Your task to perform on an android device: Open Youtube and go to "Your channel" Image 0: 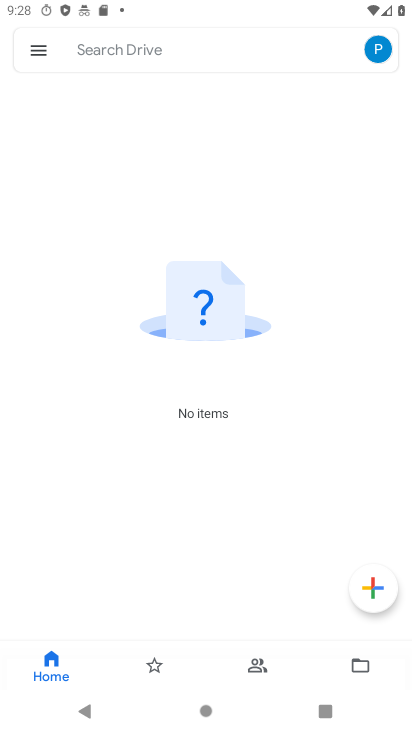
Step 0: press back button
Your task to perform on an android device: Open Youtube and go to "Your channel" Image 1: 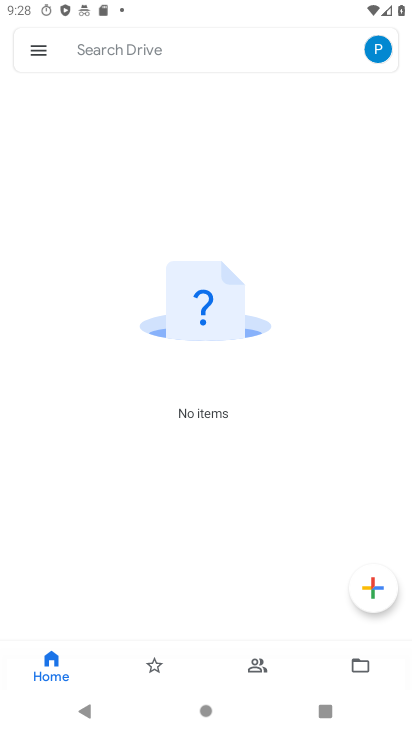
Step 1: press back button
Your task to perform on an android device: Open Youtube and go to "Your channel" Image 2: 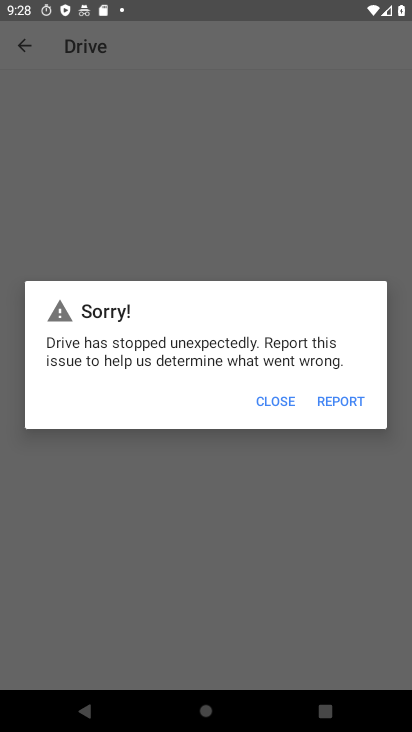
Step 2: click (262, 383)
Your task to perform on an android device: Open Youtube and go to "Your channel" Image 3: 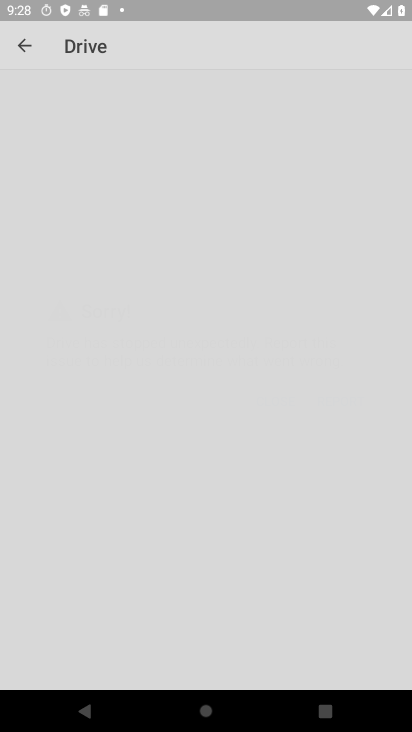
Step 3: click (267, 393)
Your task to perform on an android device: Open Youtube and go to "Your channel" Image 4: 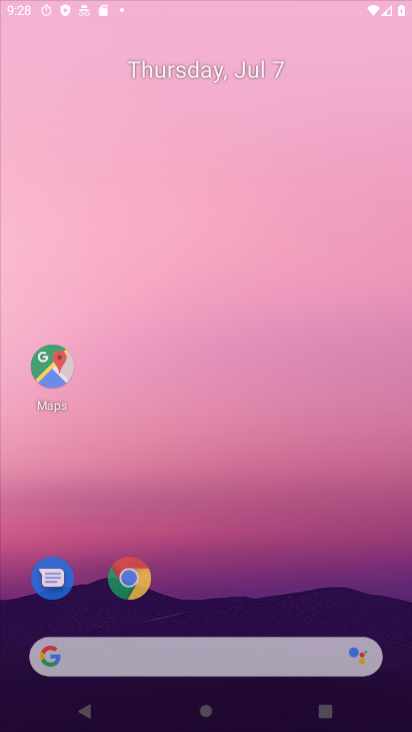
Step 4: click (272, 393)
Your task to perform on an android device: Open Youtube and go to "Your channel" Image 5: 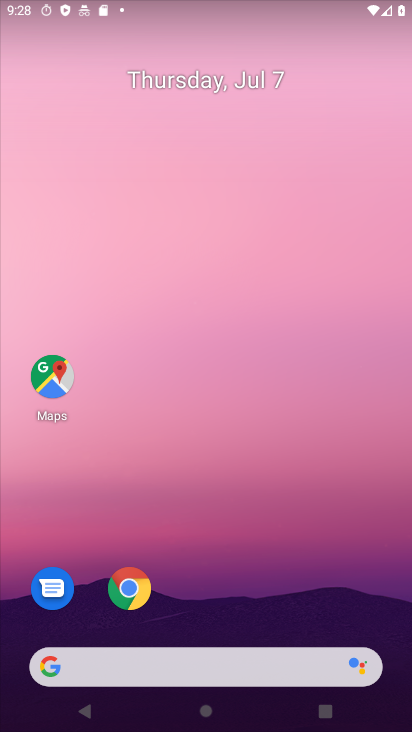
Step 5: drag from (286, 524) to (253, 135)
Your task to perform on an android device: Open Youtube and go to "Your channel" Image 6: 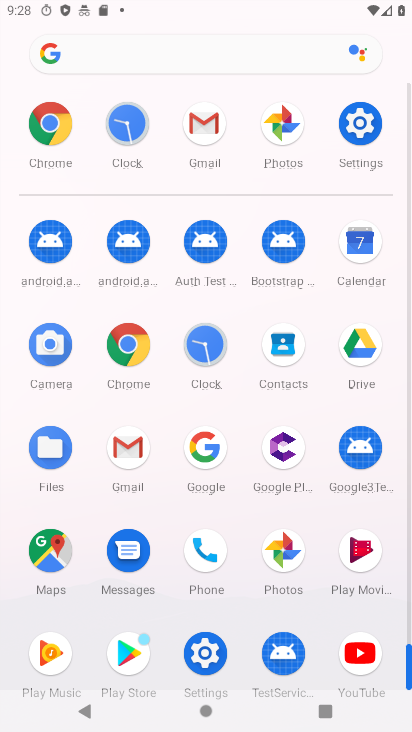
Step 6: click (362, 642)
Your task to perform on an android device: Open Youtube and go to "Your channel" Image 7: 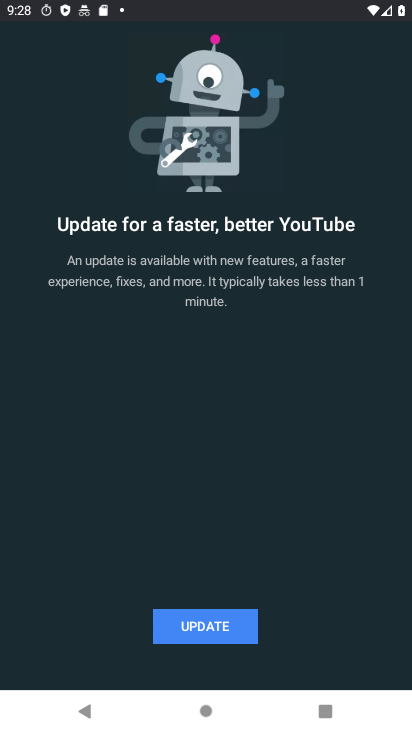
Step 7: press back button
Your task to perform on an android device: Open Youtube and go to "Your channel" Image 8: 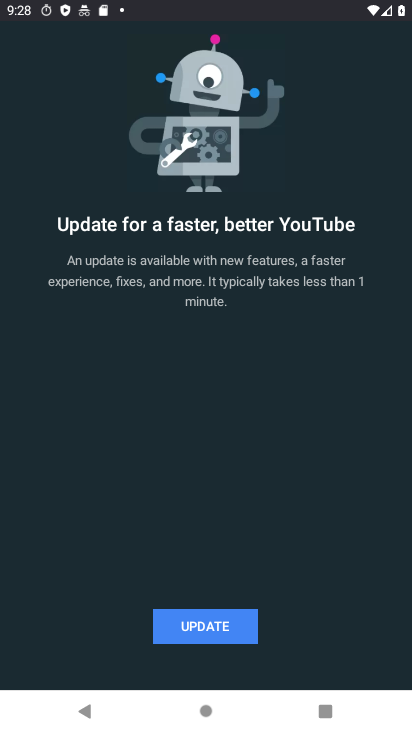
Step 8: press back button
Your task to perform on an android device: Open Youtube and go to "Your channel" Image 9: 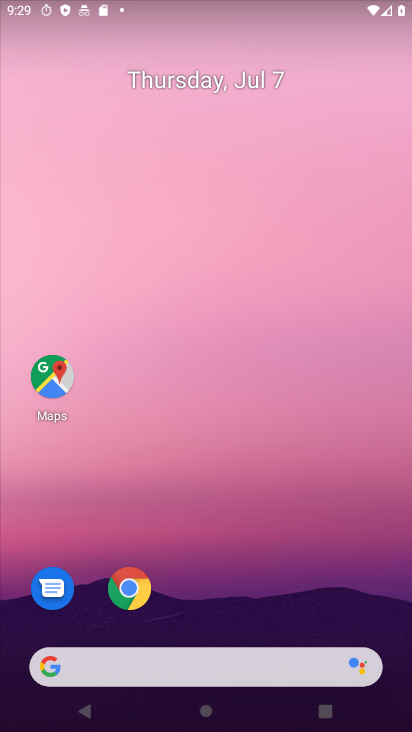
Step 9: drag from (201, 587) to (136, 266)
Your task to perform on an android device: Open Youtube and go to "Your channel" Image 10: 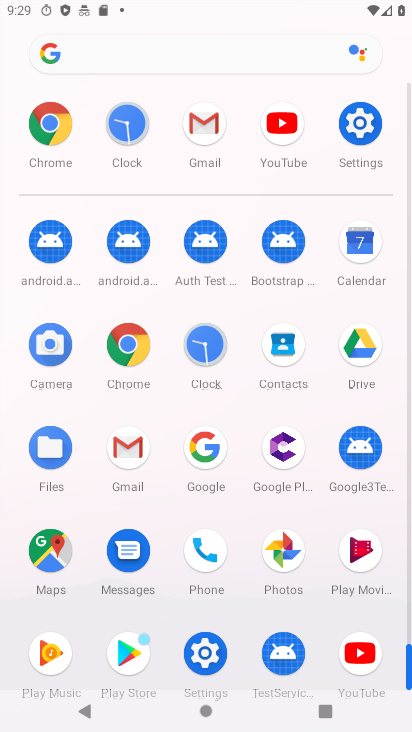
Step 10: click (204, 655)
Your task to perform on an android device: Open Youtube and go to "Your channel" Image 11: 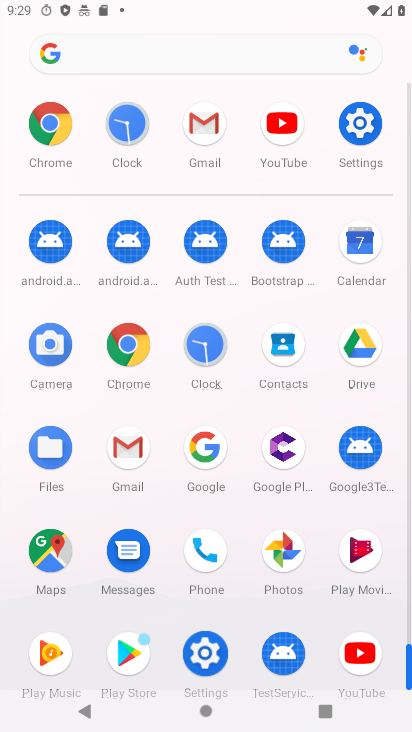
Step 11: click (204, 655)
Your task to perform on an android device: Open Youtube and go to "Your channel" Image 12: 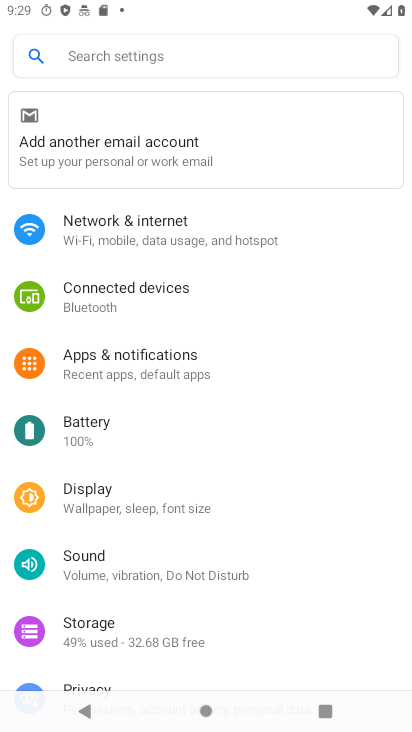
Step 12: press back button
Your task to perform on an android device: Open Youtube and go to "Your channel" Image 13: 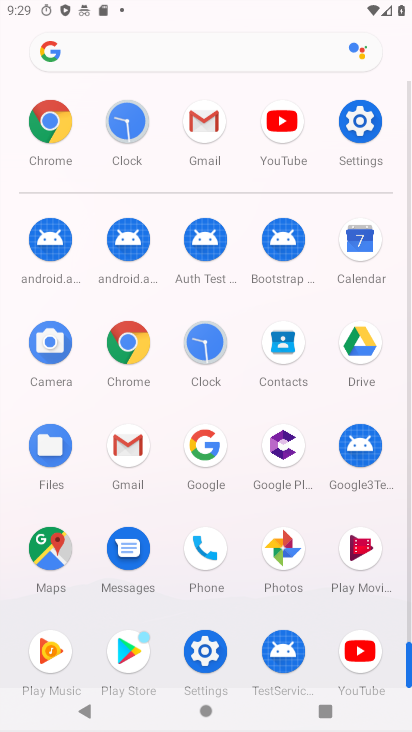
Step 13: press back button
Your task to perform on an android device: Open Youtube and go to "Your channel" Image 14: 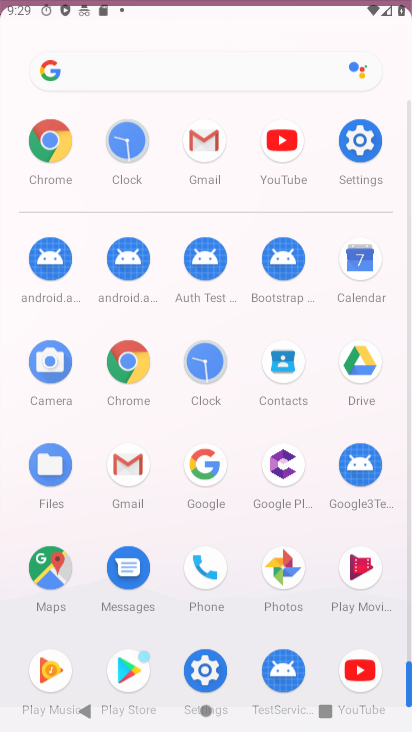
Step 14: press back button
Your task to perform on an android device: Open Youtube and go to "Your channel" Image 15: 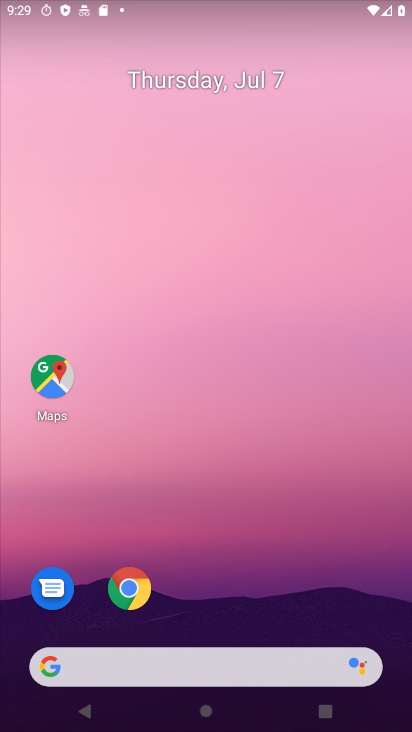
Step 15: drag from (227, 449) to (114, 24)
Your task to perform on an android device: Open Youtube and go to "Your channel" Image 16: 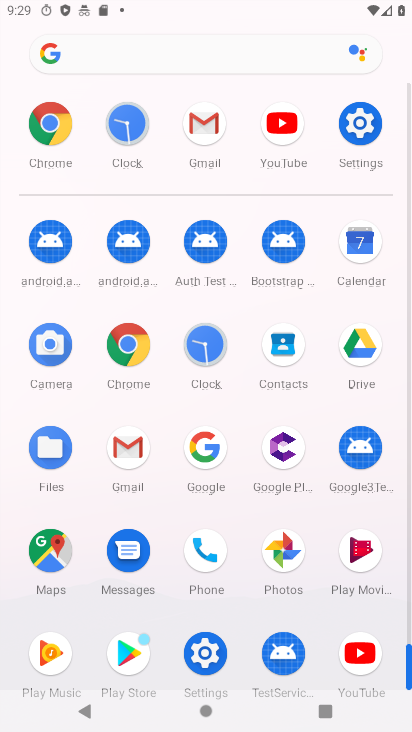
Step 16: click (289, 127)
Your task to perform on an android device: Open Youtube and go to "Your channel" Image 17: 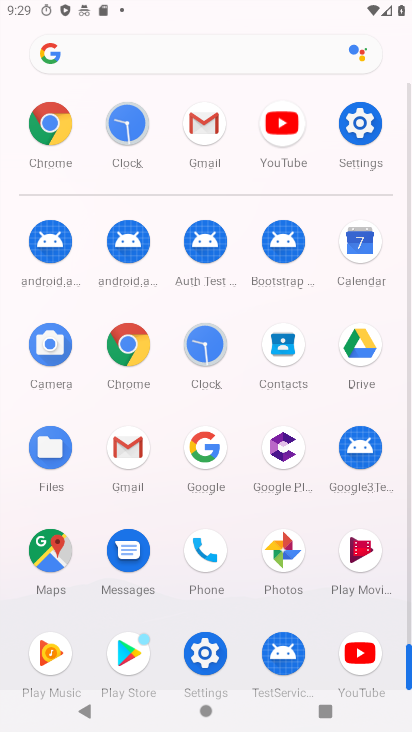
Step 17: click (289, 127)
Your task to perform on an android device: Open Youtube and go to "Your channel" Image 18: 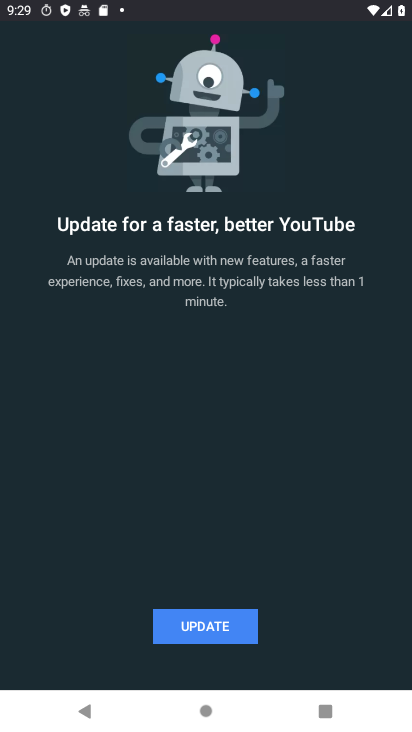
Step 18: click (204, 625)
Your task to perform on an android device: Open Youtube and go to "Your channel" Image 19: 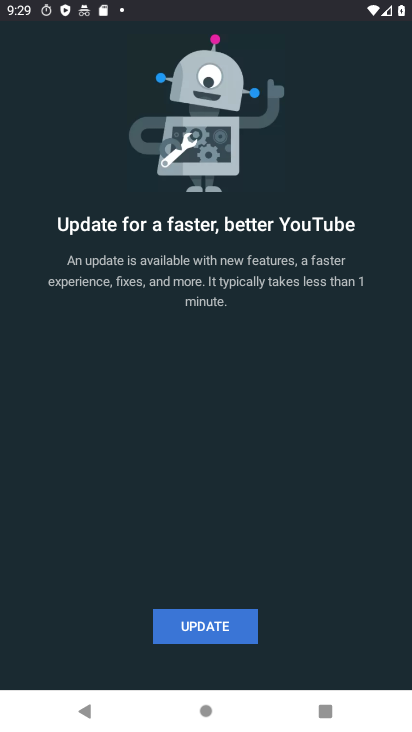
Step 19: click (203, 626)
Your task to perform on an android device: Open Youtube and go to "Your channel" Image 20: 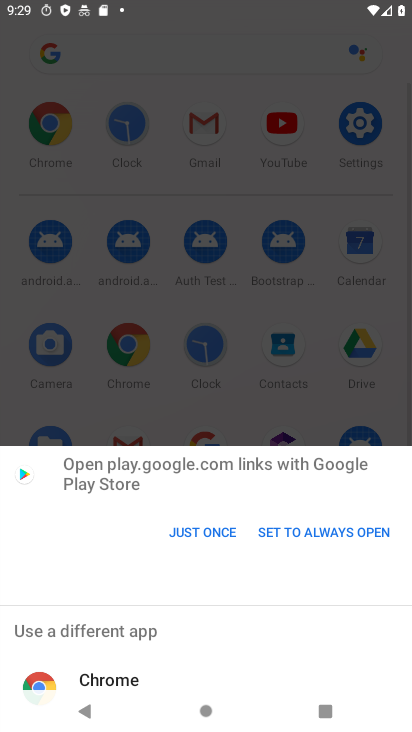
Step 20: drag from (227, 625) to (118, 144)
Your task to perform on an android device: Open Youtube and go to "Your channel" Image 21: 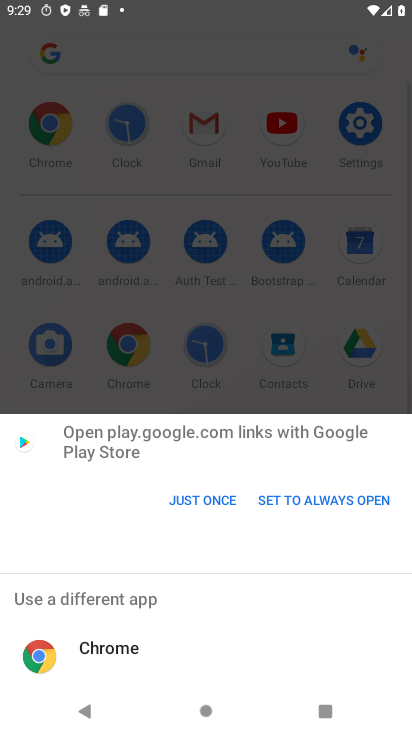
Step 21: click (112, 647)
Your task to perform on an android device: Open Youtube and go to "Your channel" Image 22: 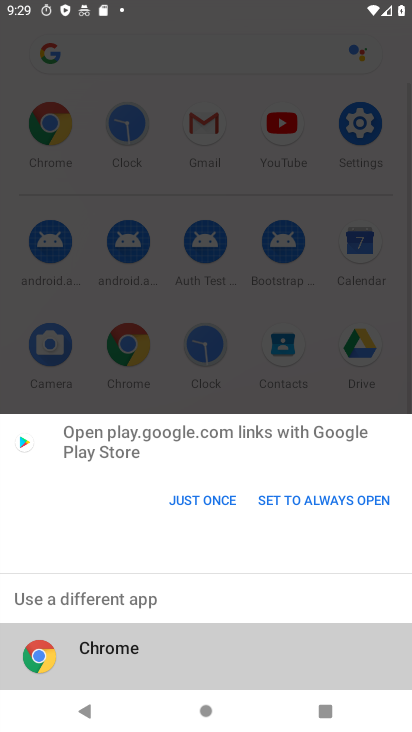
Step 22: click (113, 626)
Your task to perform on an android device: Open Youtube and go to "Your channel" Image 23: 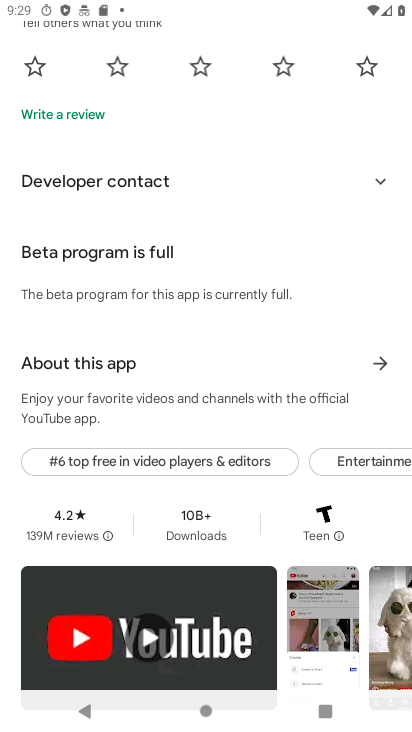
Step 23: task complete